Your task to perform on an android device: turn on location history Image 0: 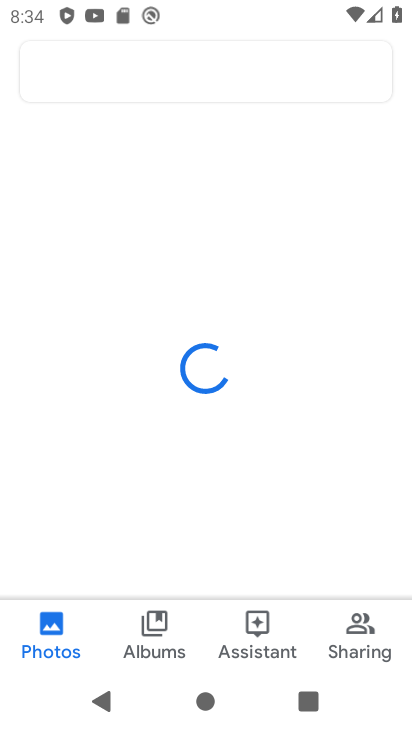
Step 0: press home button
Your task to perform on an android device: turn on location history Image 1: 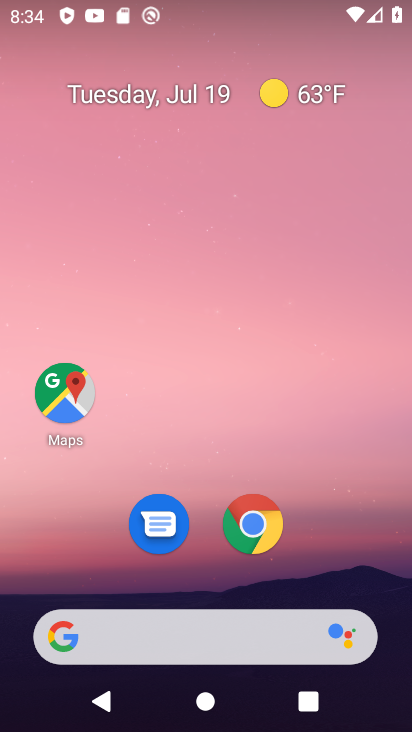
Step 1: click (69, 375)
Your task to perform on an android device: turn on location history Image 2: 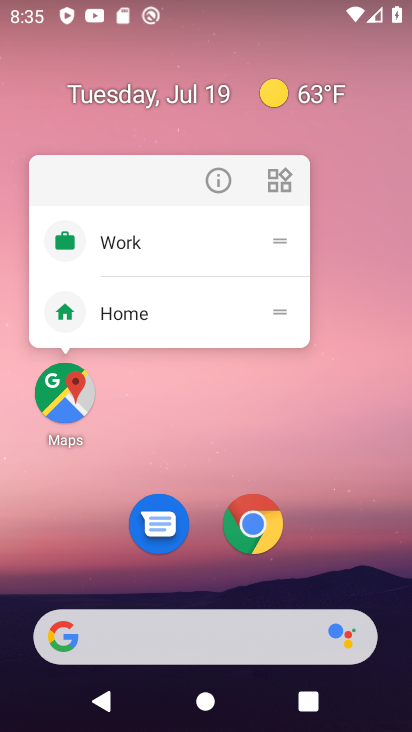
Step 2: click (69, 389)
Your task to perform on an android device: turn on location history Image 3: 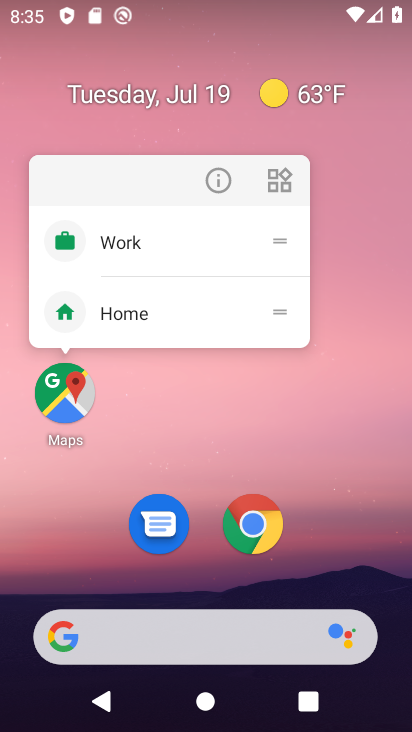
Step 3: click (66, 392)
Your task to perform on an android device: turn on location history Image 4: 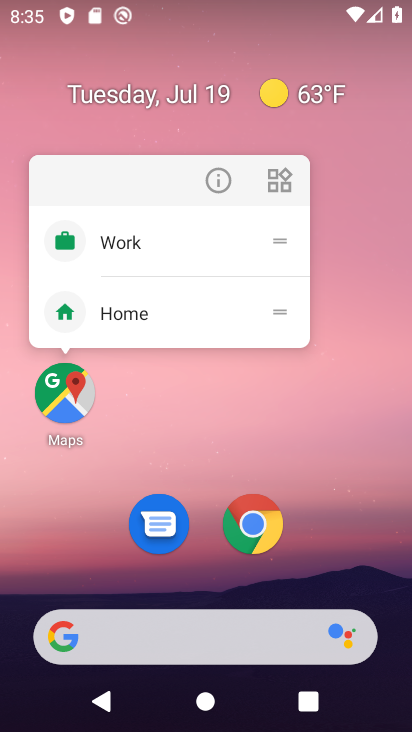
Step 4: click (66, 392)
Your task to perform on an android device: turn on location history Image 5: 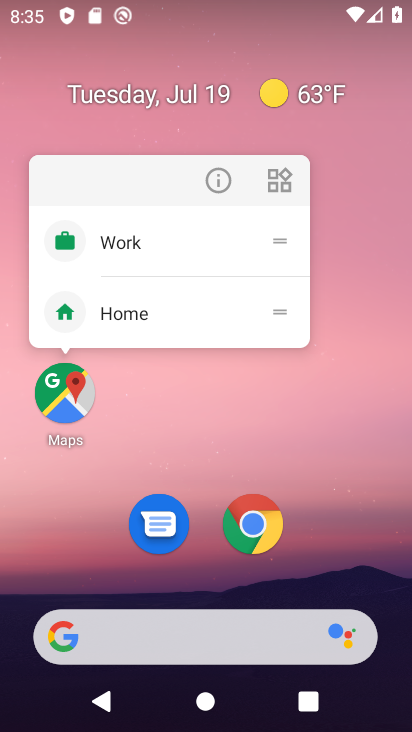
Step 5: click (66, 391)
Your task to perform on an android device: turn on location history Image 6: 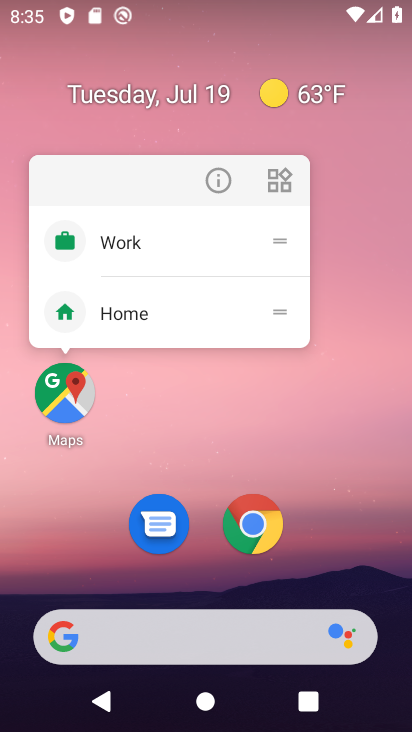
Step 6: click (66, 393)
Your task to perform on an android device: turn on location history Image 7: 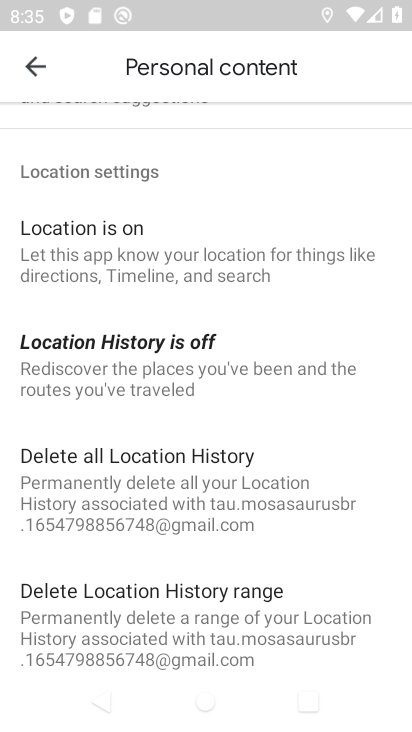
Step 7: click (187, 346)
Your task to perform on an android device: turn on location history Image 8: 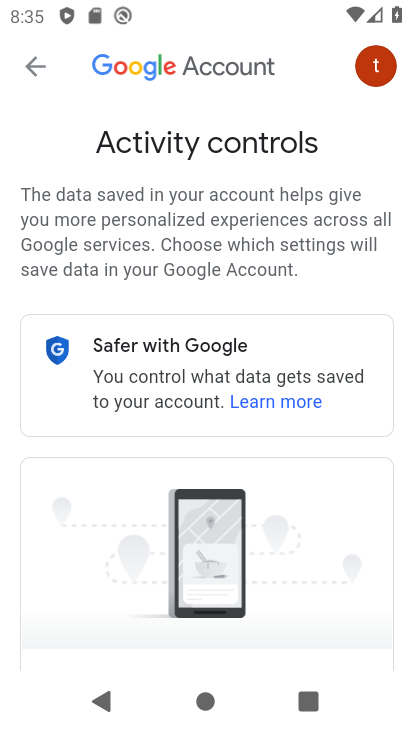
Step 8: drag from (286, 567) to (347, 76)
Your task to perform on an android device: turn on location history Image 9: 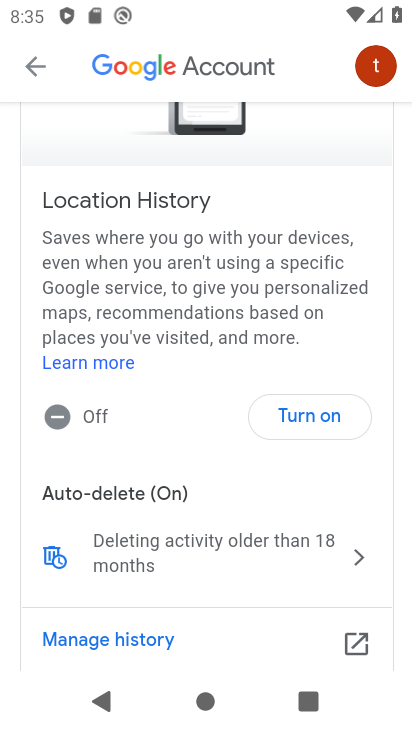
Step 9: click (311, 414)
Your task to perform on an android device: turn on location history Image 10: 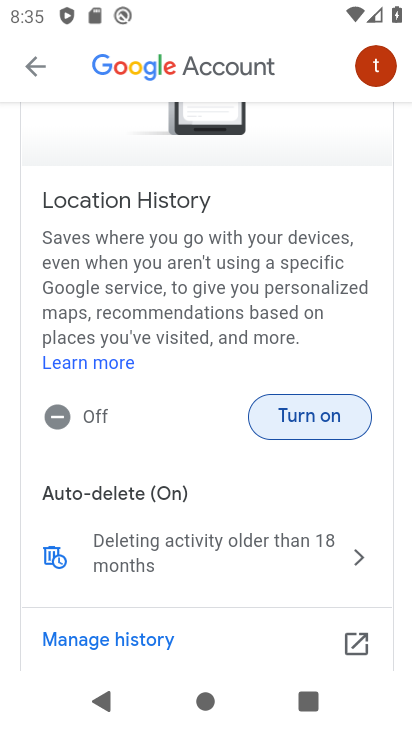
Step 10: click (311, 414)
Your task to perform on an android device: turn on location history Image 11: 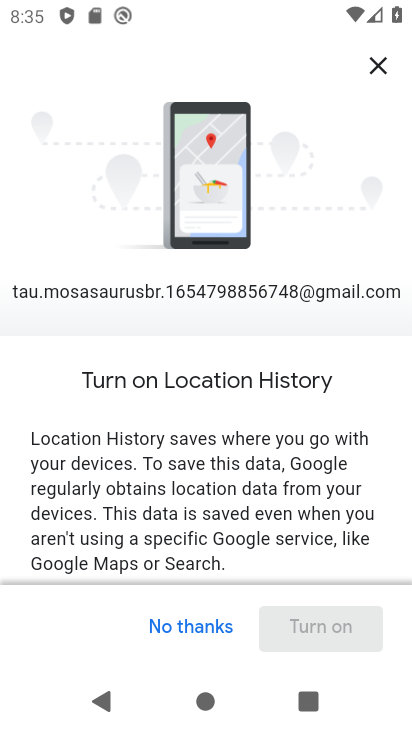
Step 11: drag from (221, 505) to (301, 158)
Your task to perform on an android device: turn on location history Image 12: 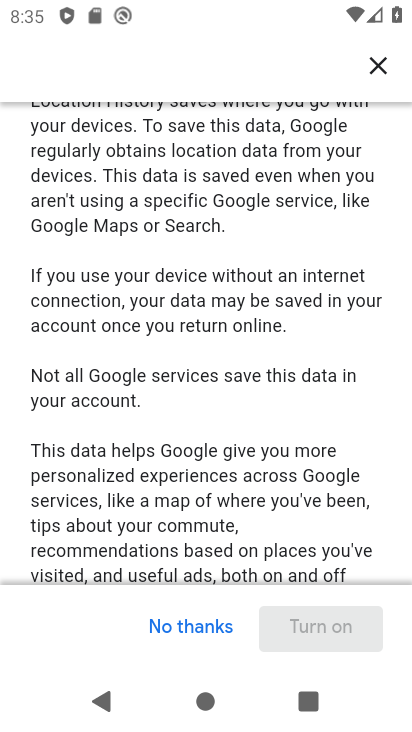
Step 12: drag from (210, 477) to (273, 193)
Your task to perform on an android device: turn on location history Image 13: 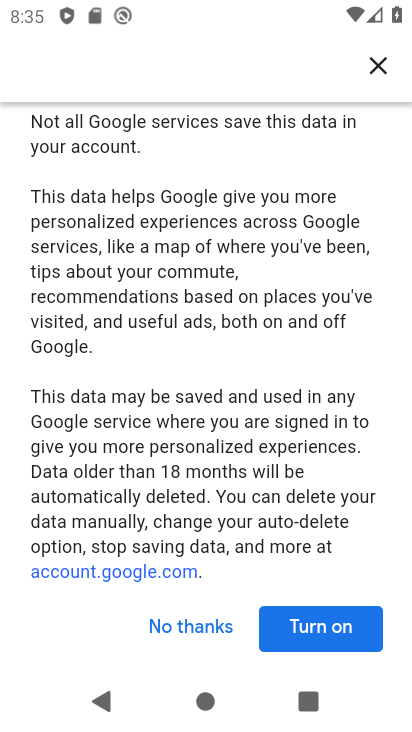
Step 13: click (327, 628)
Your task to perform on an android device: turn on location history Image 14: 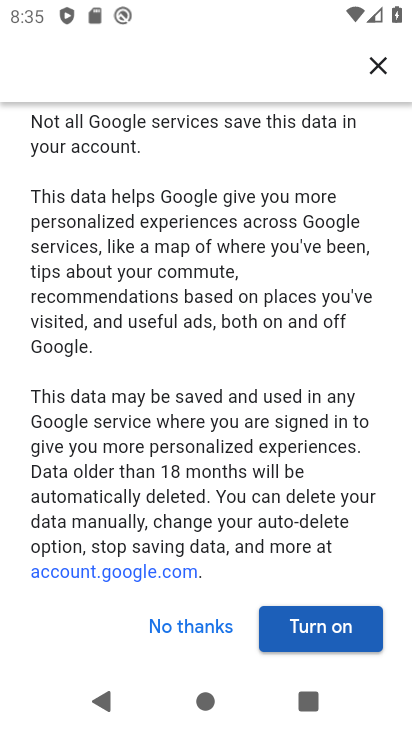
Step 14: click (326, 629)
Your task to perform on an android device: turn on location history Image 15: 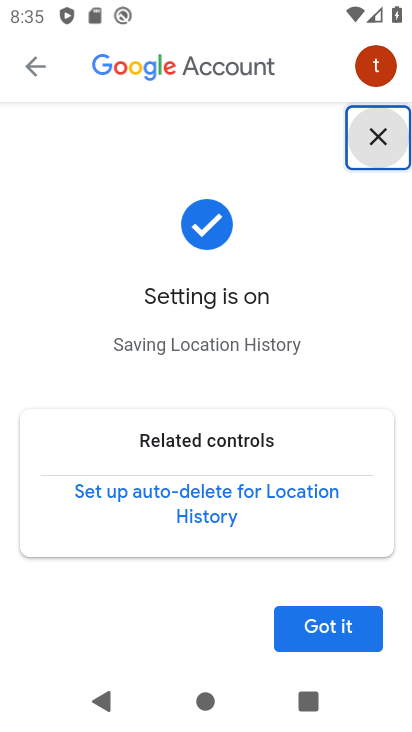
Step 15: click (351, 624)
Your task to perform on an android device: turn on location history Image 16: 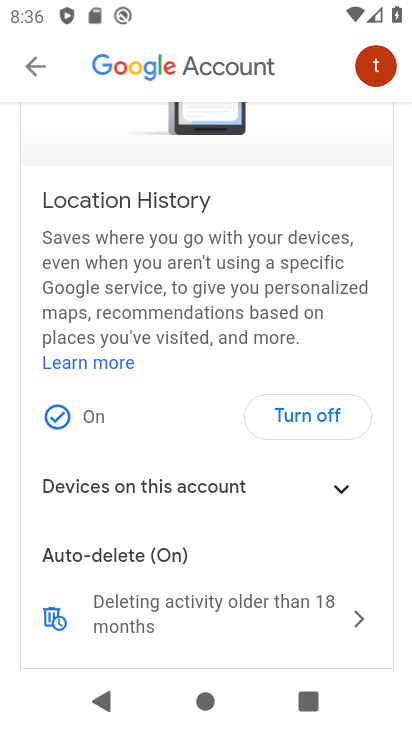
Step 16: task complete